Your task to perform on an android device: Open Yahoo.com Image 0: 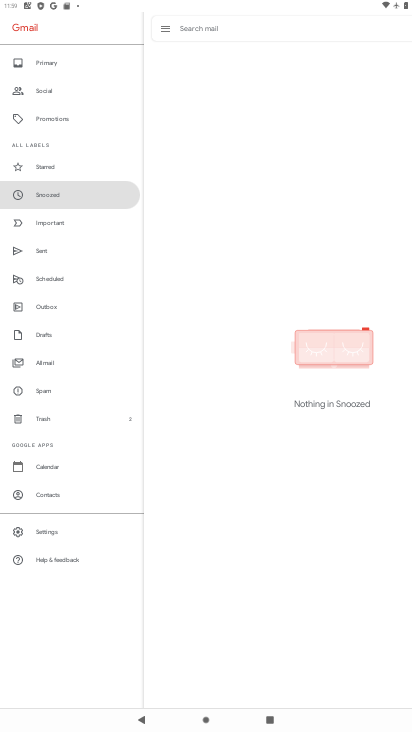
Step 0: press home button
Your task to perform on an android device: Open Yahoo.com Image 1: 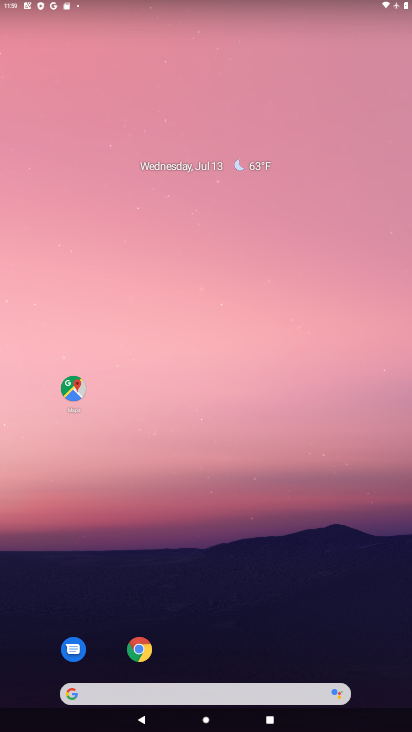
Step 1: drag from (225, 589) to (279, 228)
Your task to perform on an android device: Open Yahoo.com Image 2: 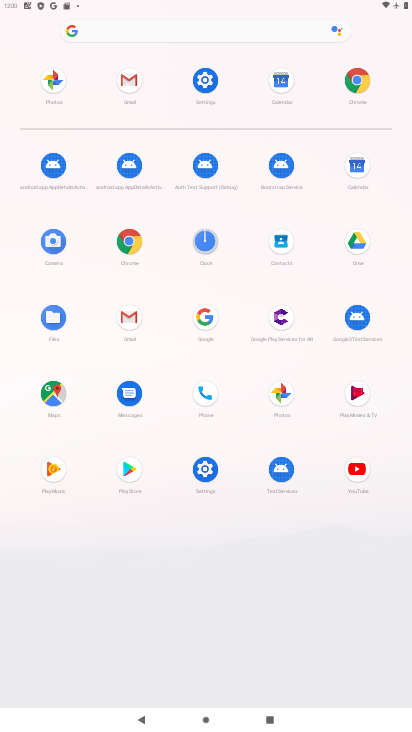
Step 2: click (366, 80)
Your task to perform on an android device: Open Yahoo.com Image 3: 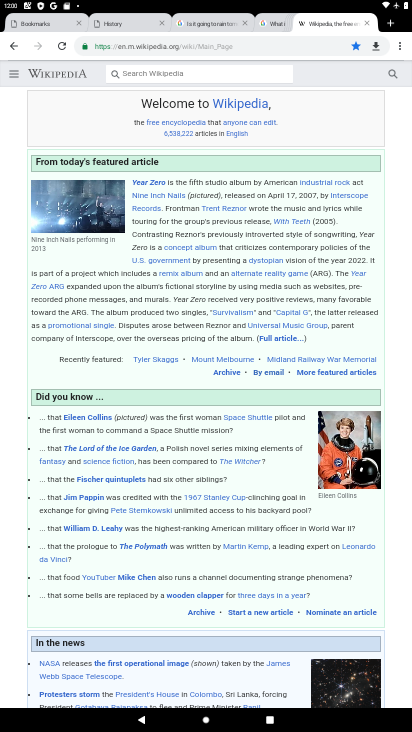
Step 3: click (391, 21)
Your task to perform on an android device: Open Yahoo.com Image 4: 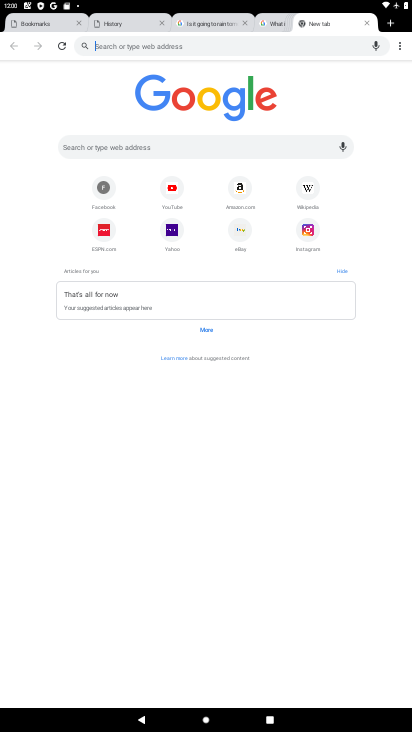
Step 4: click (177, 229)
Your task to perform on an android device: Open Yahoo.com Image 5: 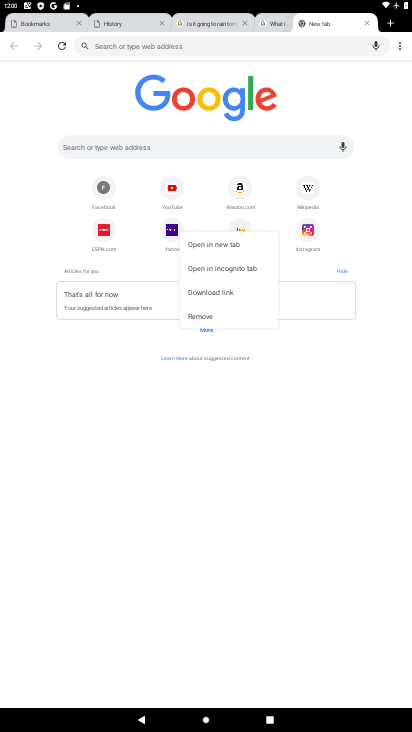
Step 5: click (170, 225)
Your task to perform on an android device: Open Yahoo.com Image 6: 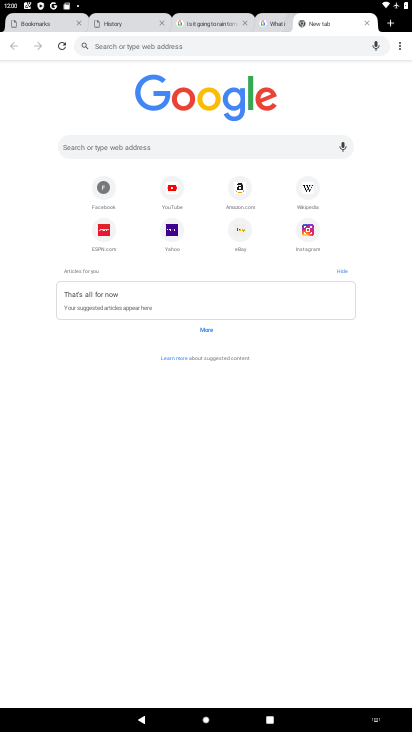
Step 6: click (169, 238)
Your task to perform on an android device: Open Yahoo.com Image 7: 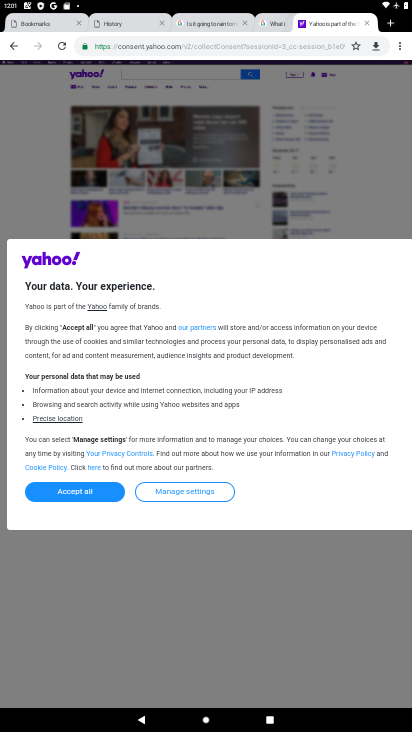
Step 7: task complete